Your task to perform on an android device: check google app version Image 0: 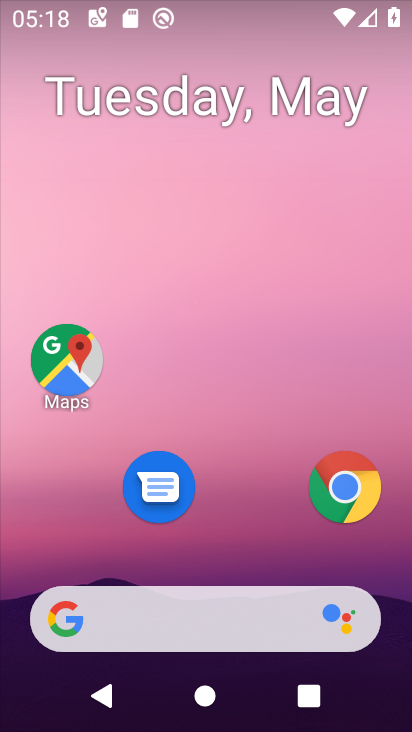
Step 0: drag from (261, 536) to (224, 3)
Your task to perform on an android device: check google app version Image 1: 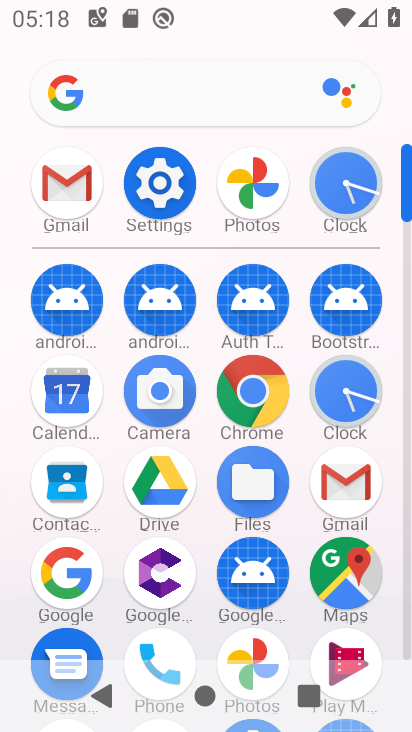
Step 1: click (245, 383)
Your task to perform on an android device: check google app version Image 2: 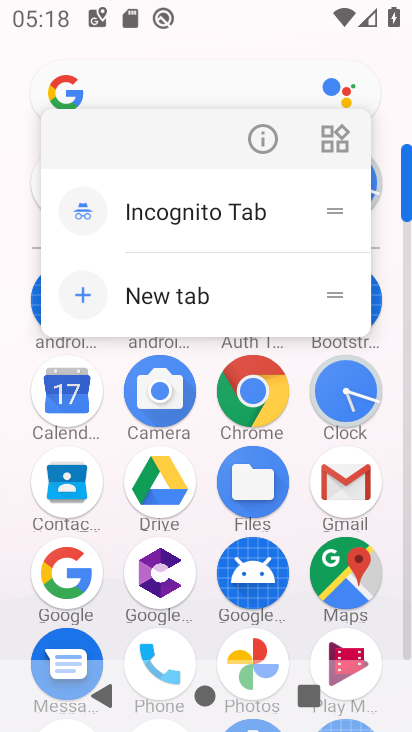
Step 2: click (267, 145)
Your task to perform on an android device: check google app version Image 3: 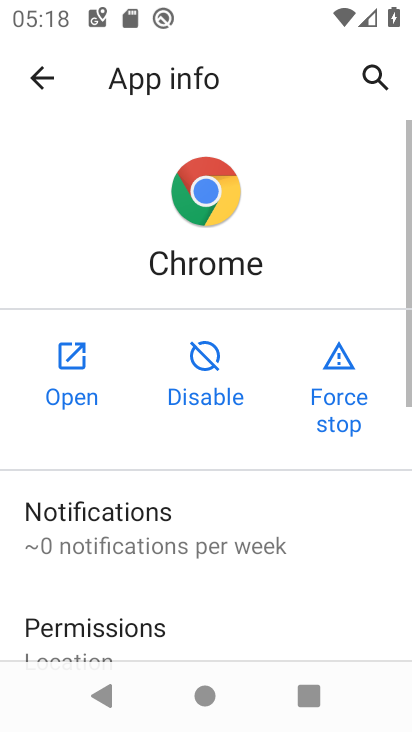
Step 3: drag from (250, 451) to (212, 176)
Your task to perform on an android device: check google app version Image 4: 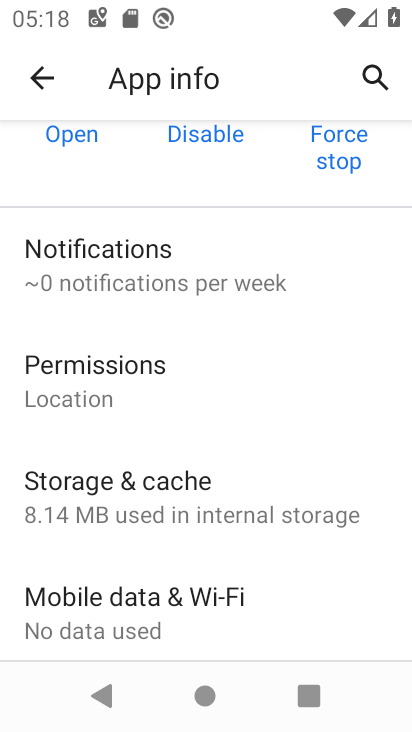
Step 4: drag from (214, 621) to (143, 147)
Your task to perform on an android device: check google app version Image 5: 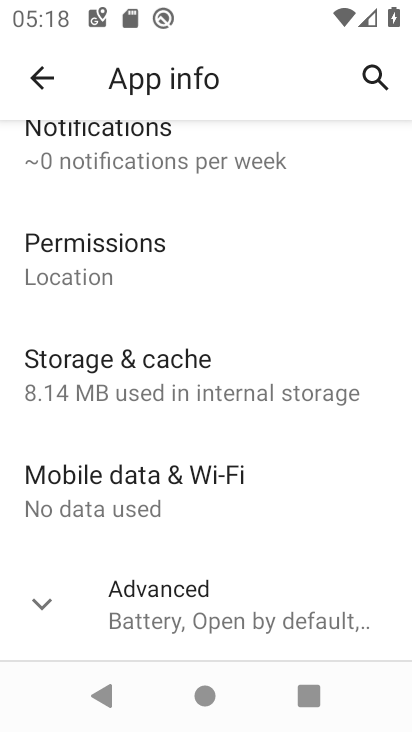
Step 5: click (174, 597)
Your task to perform on an android device: check google app version Image 6: 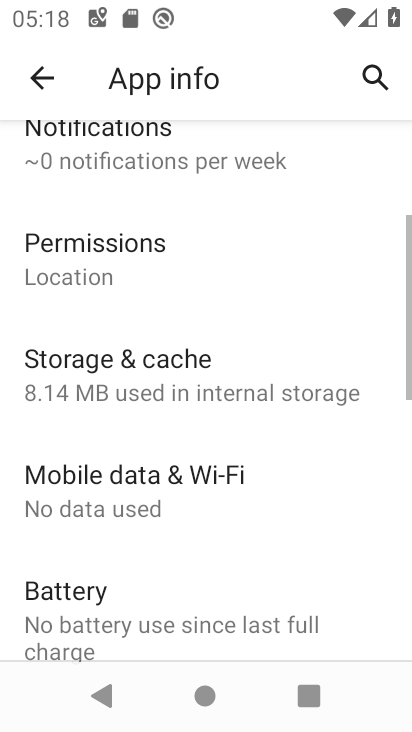
Step 6: task complete